Your task to perform on an android device: search for starred emails in the gmail app Image 0: 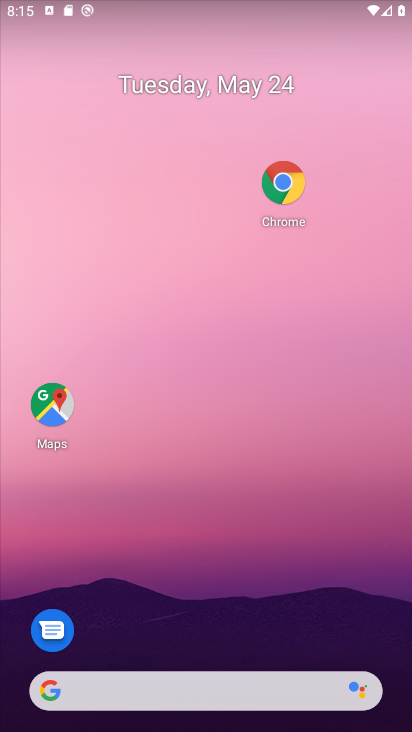
Step 0: press home button
Your task to perform on an android device: search for starred emails in the gmail app Image 1: 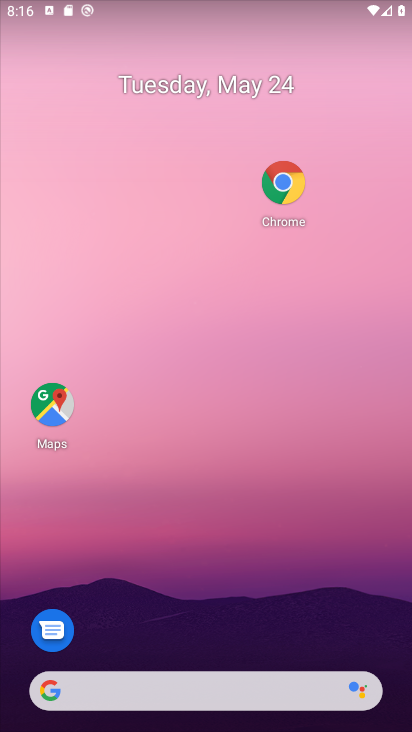
Step 1: drag from (263, 708) to (192, 205)
Your task to perform on an android device: search for starred emails in the gmail app Image 2: 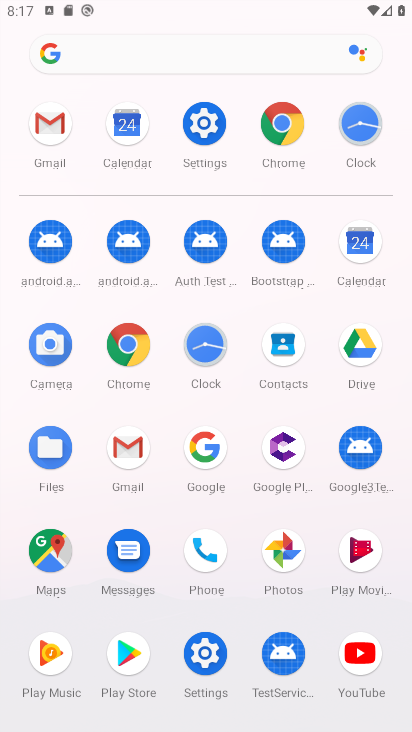
Step 2: click (139, 443)
Your task to perform on an android device: search for starred emails in the gmail app Image 3: 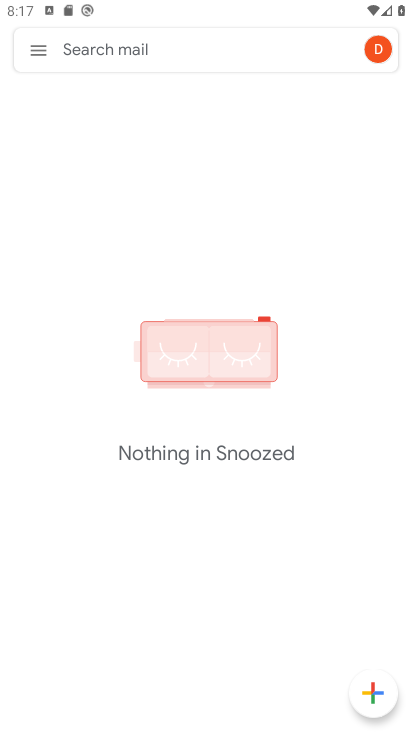
Step 3: click (47, 66)
Your task to perform on an android device: search for starred emails in the gmail app Image 4: 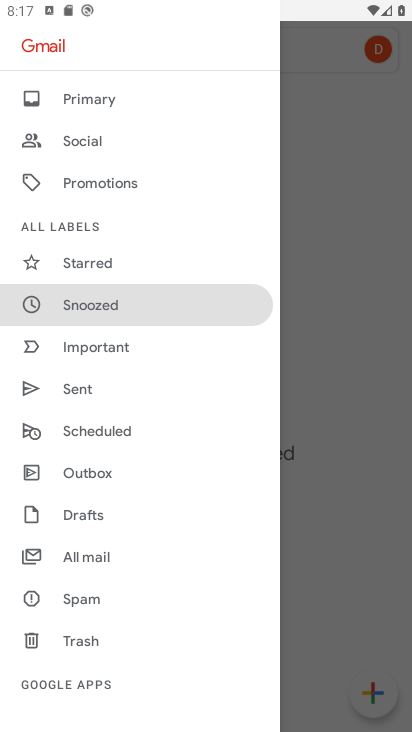
Step 4: click (113, 265)
Your task to perform on an android device: search for starred emails in the gmail app Image 5: 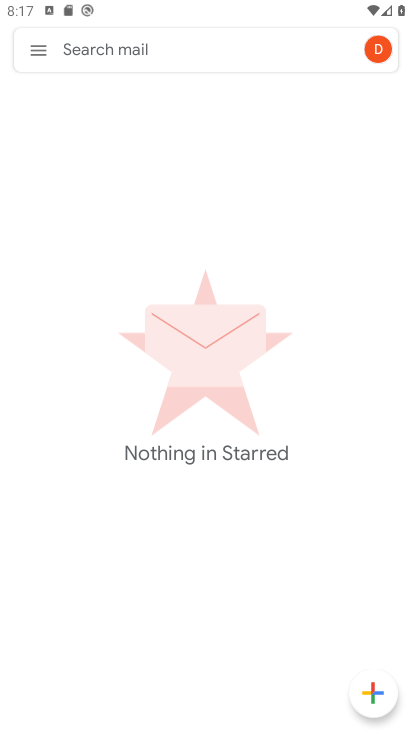
Step 5: task complete